Your task to perform on an android device: empty trash in the gmail app Image 0: 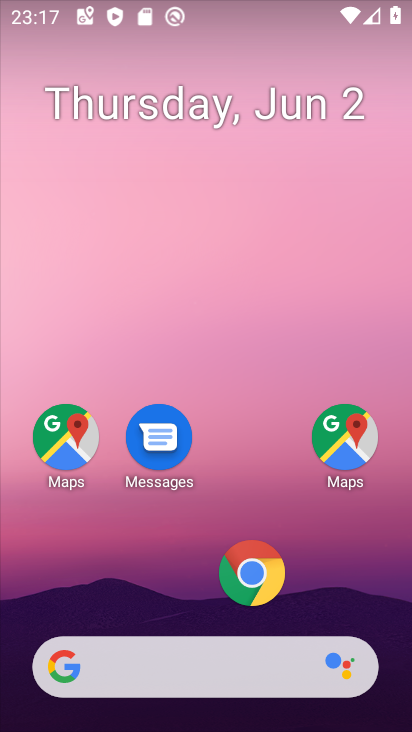
Step 0: drag from (310, 559) to (276, 65)
Your task to perform on an android device: empty trash in the gmail app Image 1: 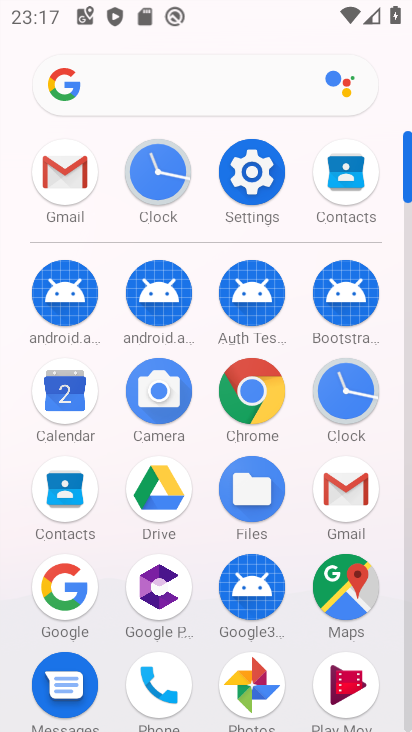
Step 1: click (348, 496)
Your task to perform on an android device: empty trash in the gmail app Image 2: 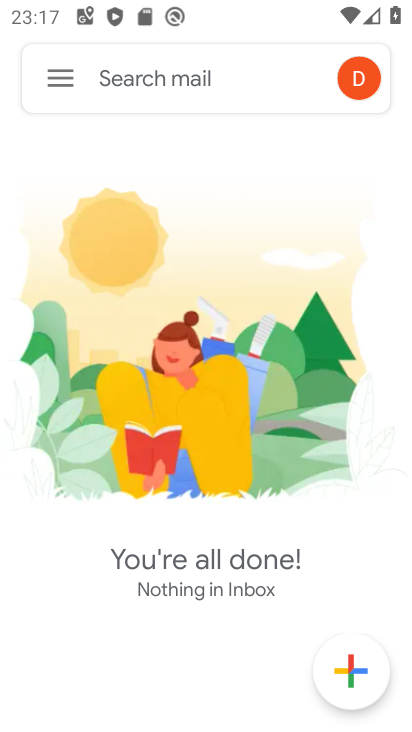
Step 2: click (56, 74)
Your task to perform on an android device: empty trash in the gmail app Image 3: 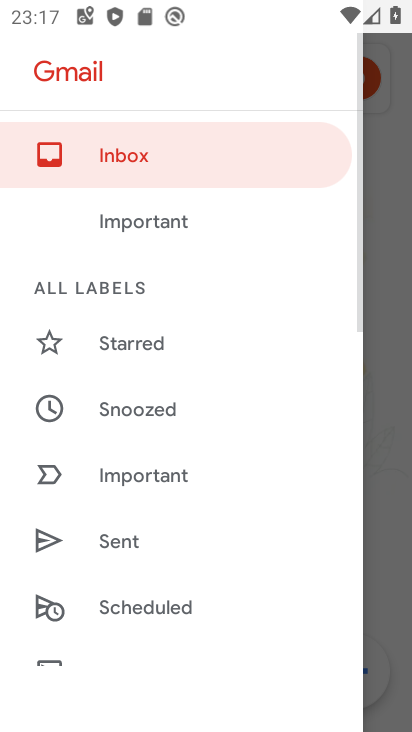
Step 3: drag from (180, 589) to (151, 249)
Your task to perform on an android device: empty trash in the gmail app Image 4: 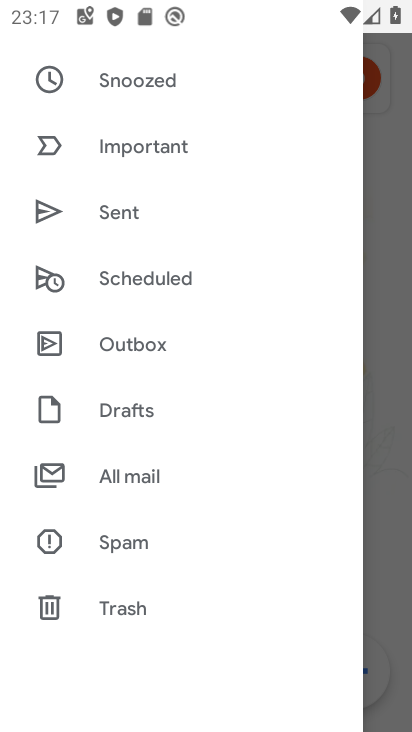
Step 4: click (137, 599)
Your task to perform on an android device: empty trash in the gmail app Image 5: 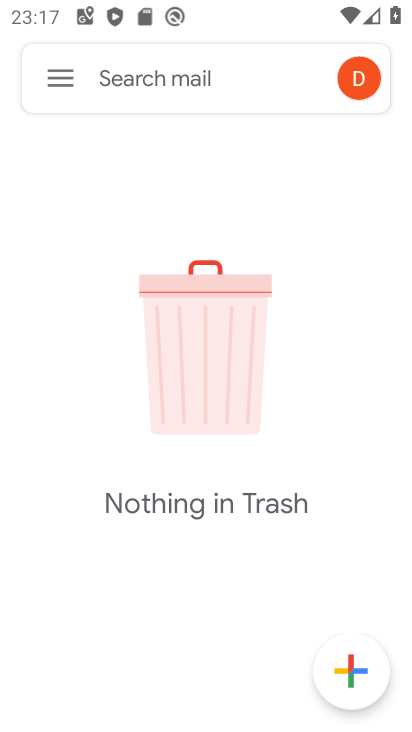
Step 5: task complete